Your task to perform on an android device: Search for sushi restaurants on Maps Image 0: 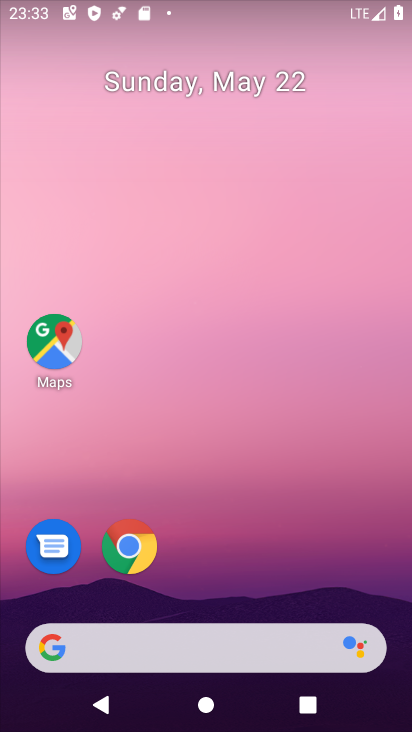
Step 0: drag from (202, 594) to (53, 0)
Your task to perform on an android device: Search for sushi restaurants on Maps Image 1: 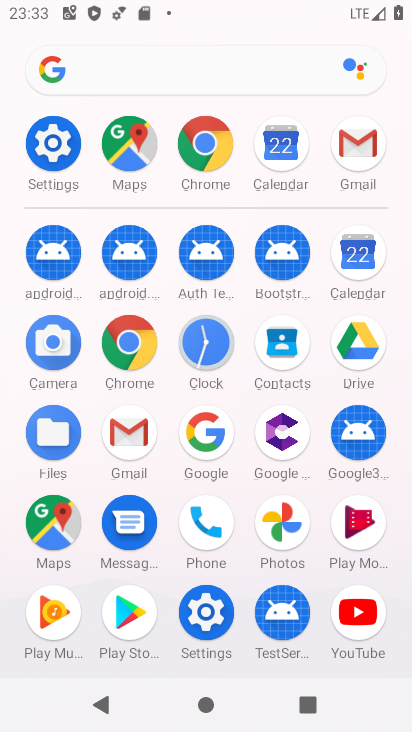
Step 1: click (55, 528)
Your task to perform on an android device: Search for sushi restaurants on Maps Image 2: 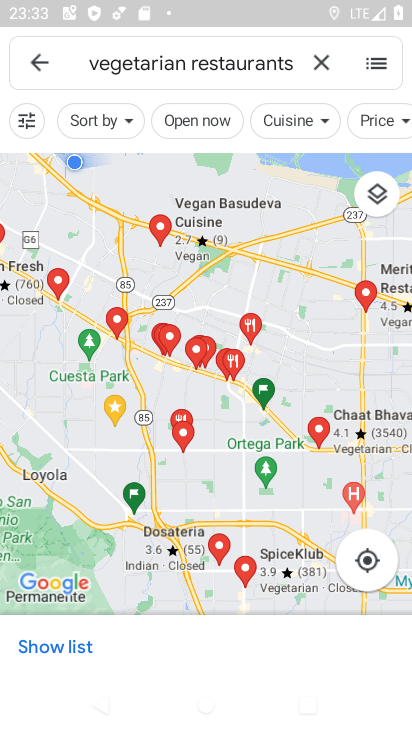
Step 2: drag from (200, 519) to (205, 196)
Your task to perform on an android device: Search for sushi restaurants on Maps Image 3: 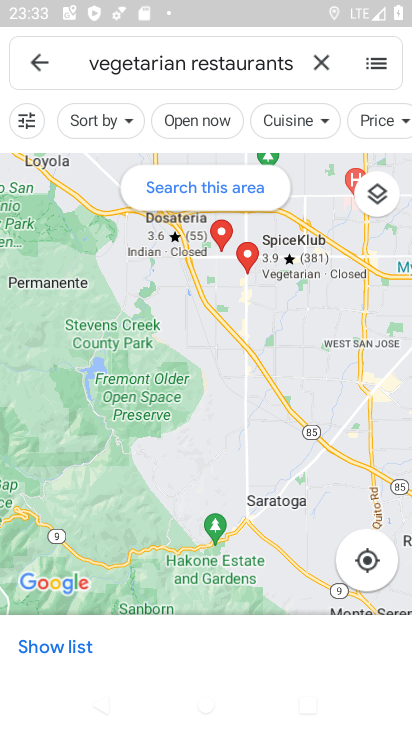
Step 3: drag from (177, 227) to (197, 507)
Your task to perform on an android device: Search for sushi restaurants on Maps Image 4: 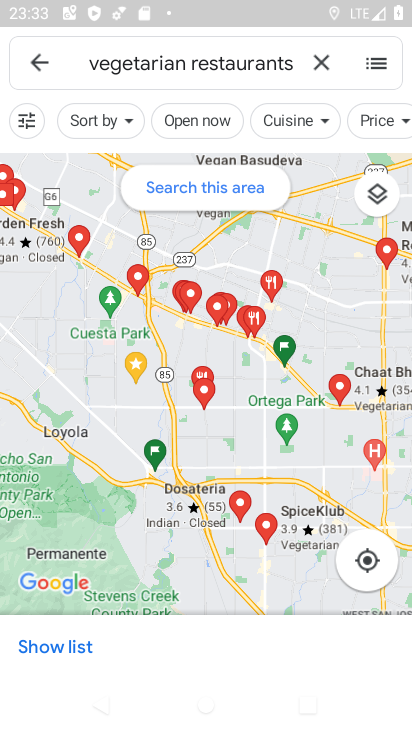
Step 4: click (317, 69)
Your task to perform on an android device: Search for sushi restaurants on Maps Image 5: 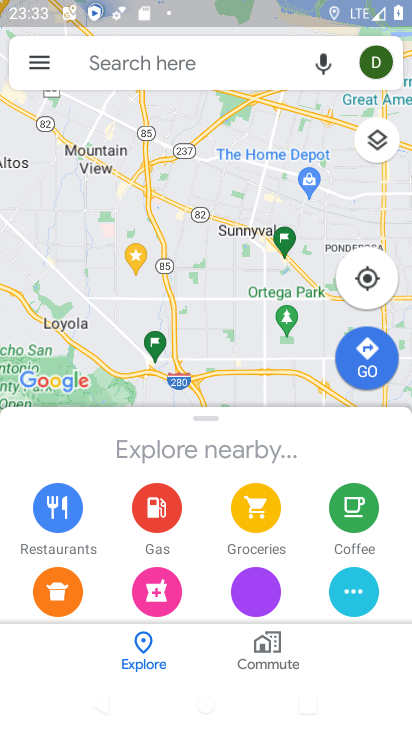
Step 5: click (138, 62)
Your task to perform on an android device: Search for sushi restaurants on Maps Image 6: 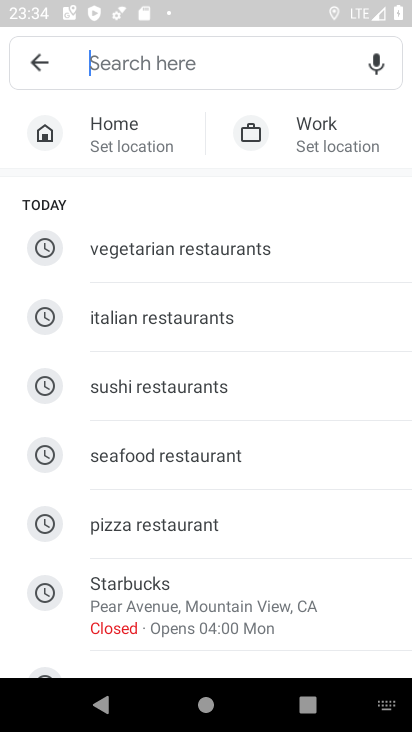
Step 6: type "sushi"
Your task to perform on an android device: Search for sushi restaurants on Maps Image 7: 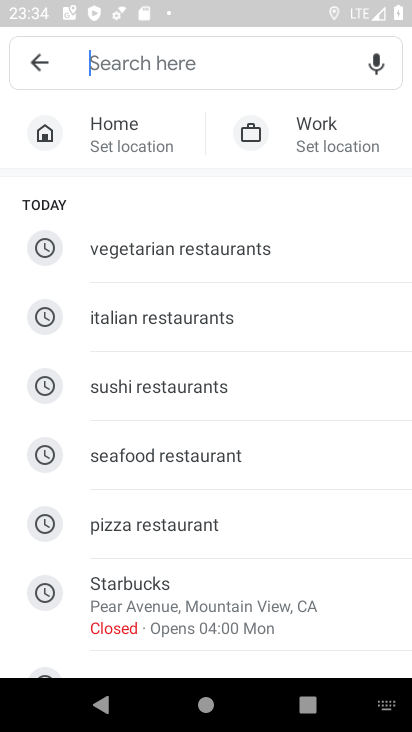
Step 7: click (173, 399)
Your task to perform on an android device: Search for sushi restaurants on Maps Image 8: 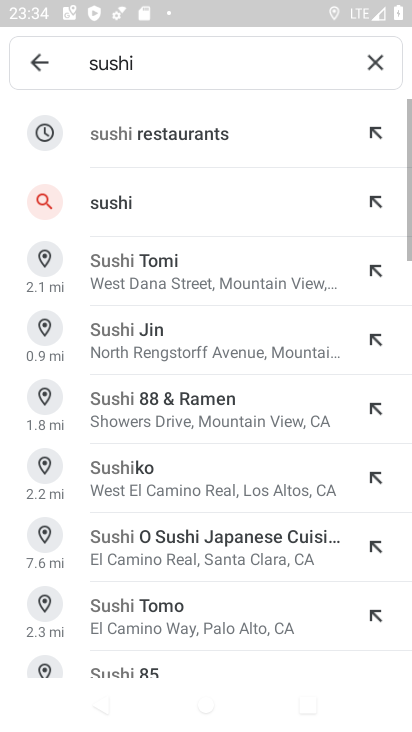
Step 8: drag from (237, 669) to (352, 10)
Your task to perform on an android device: Search for sushi restaurants on Maps Image 9: 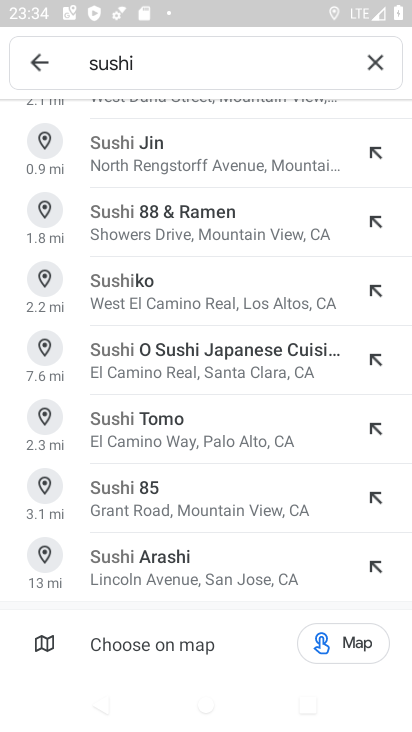
Step 9: drag from (157, 546) to (240, 200)
Your task to perform on an android device: Search for sushi restaurants on Maps Image 10: 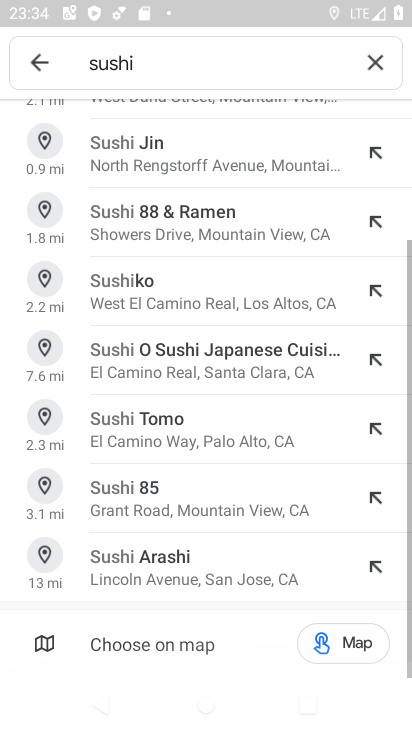
Step 10: drag from (247, 171) to (324, 722)
Your task to perform on an android device: Search for sushi restaurants on Maps Image 11: 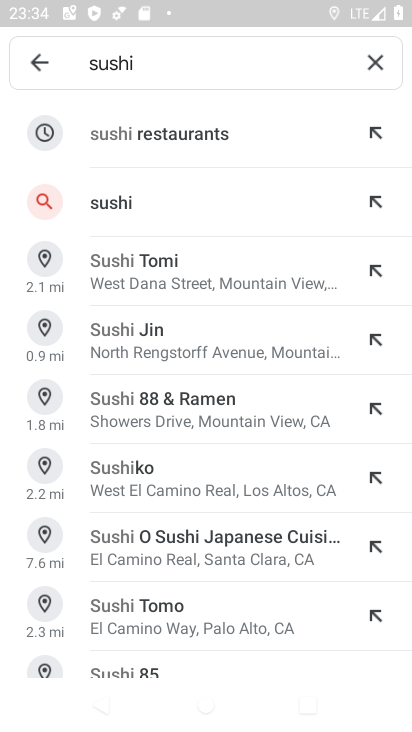
Step 11: click (155, 131)
Your task to perform on an android device: Search for sushi restaurants on Maps Image 12: 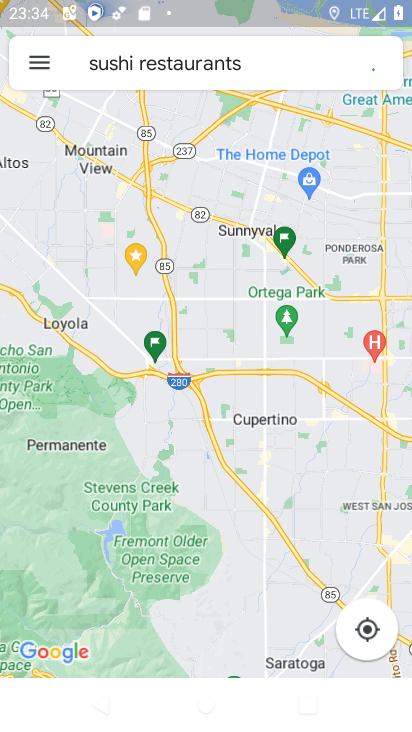
Step 12: task complete